Your task to perform on an android device: turn on improve location accuracy Image 0: 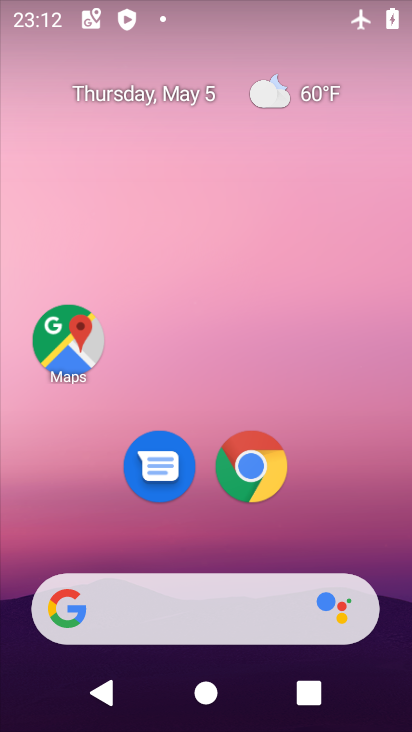
Step 0: drag from (190, 573) to (262, 284)
Your task to perform on an android device: turn on improve location accuracy Image 1: 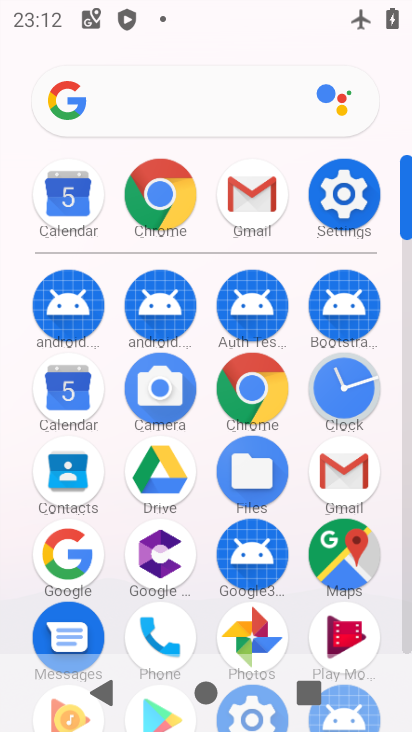
Step 1: click (337, 204)
Your task to perform on an android device: turn on improve location accuracy Image 2: 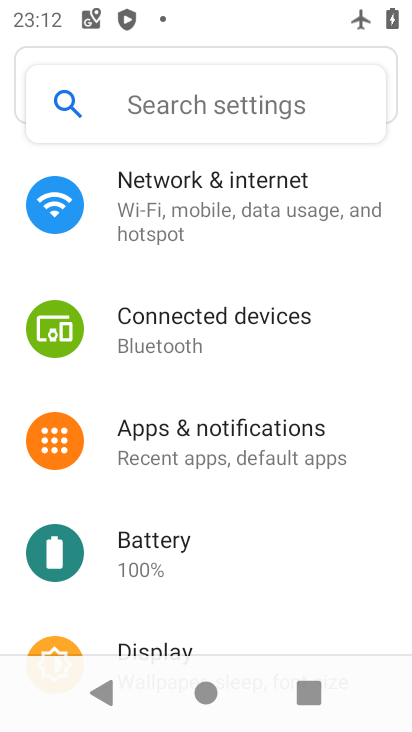
Step 2: drag from (279, 578) to (322, 266)
Your task to perform on an android device: turn on improve location accuracy Image 3: 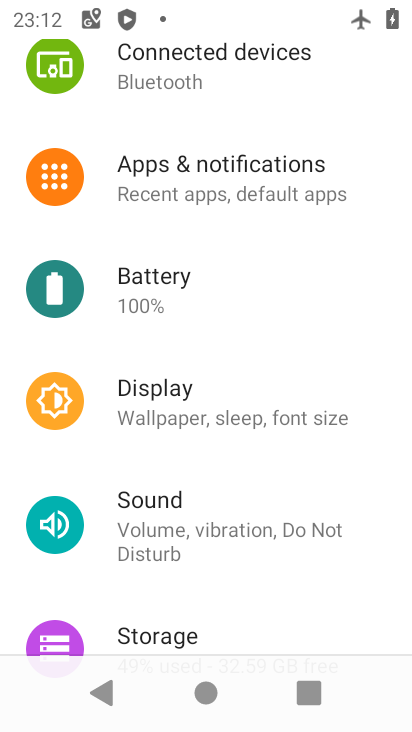
Step 3: drag from (246, 592) to (308, 281)
Your task to perform on an android device: turn on improve location accuracy Image 4: 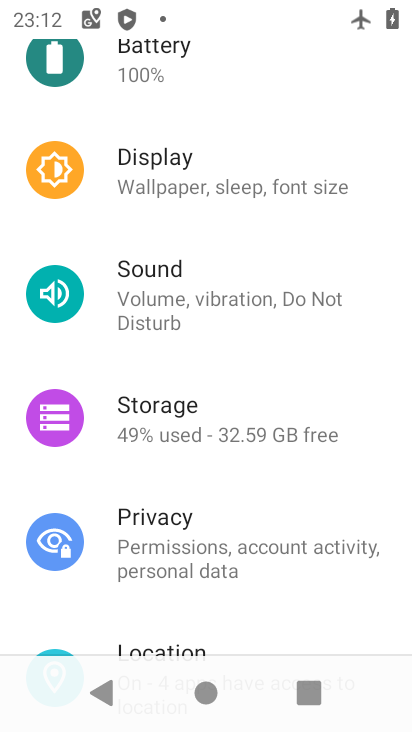
Step 4: drag from (188, 632) to (235, 346)
Your task to perform on an android device: turn on improve location accuracy Image 5: 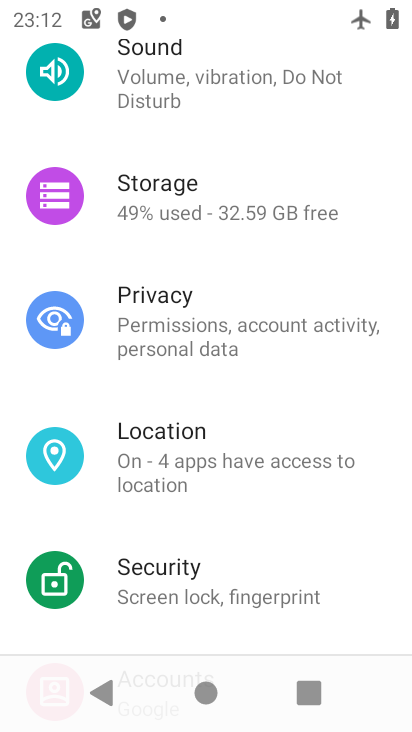
Step 5: click (181, 472)
Your task to perform on an android device: turn on improve location accuracy Image 6: 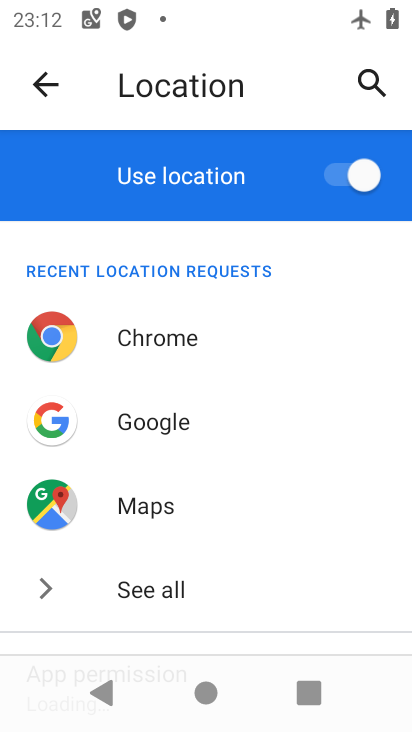
Step 6: task complete